Your task to perform on an android device: delete browsing data in the chrome app Image 0: 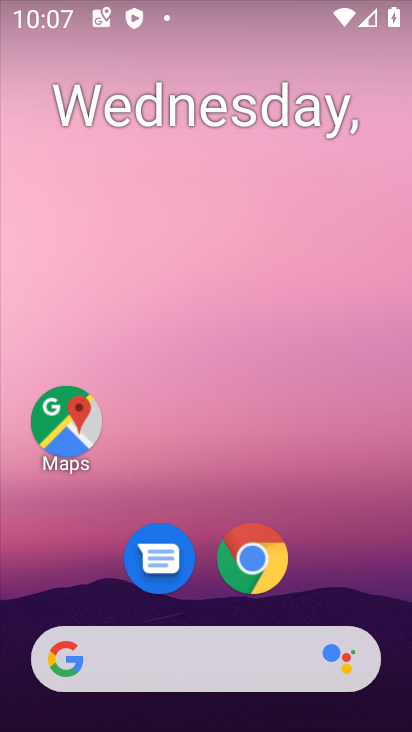
Step 0: click (249, 561)
Your task to perform on an android device: delete browsing data in the chrome app Image 1: 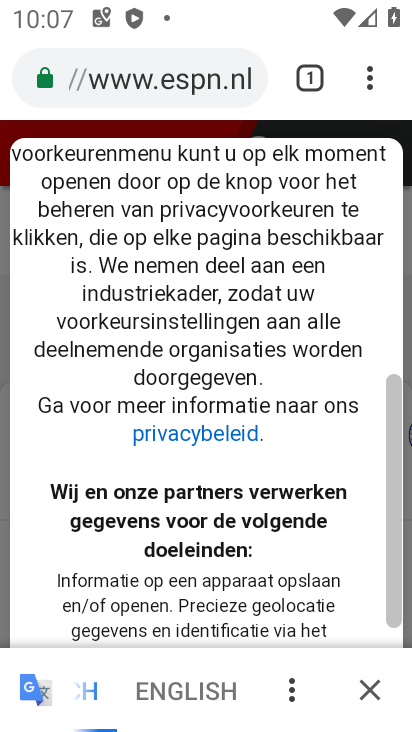
Step 1: click (365, 692)
Your task to perform on an android device: delete browsing data in the chrome app Image 2: 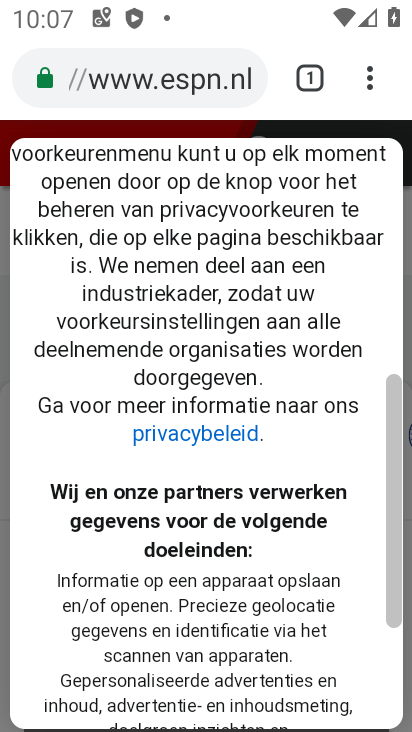
Step 2: click (366, 82)
Your task to perform on an android device: delete browsing data in the chrome app Image 3: 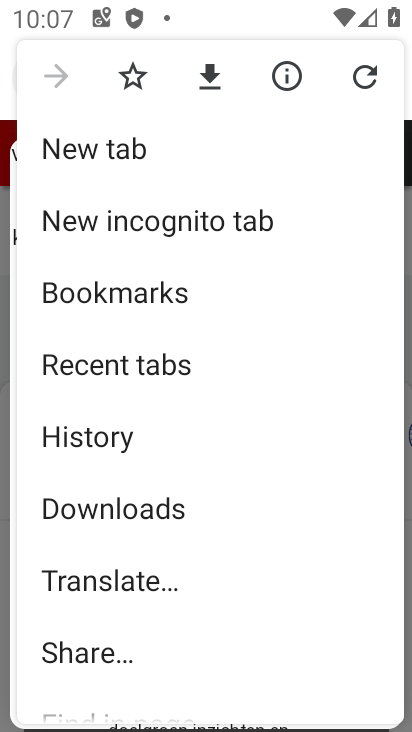
Step 3: click (142, 426)
Your task to perform on an android device: delete browsing data in the chrome app Image 4: 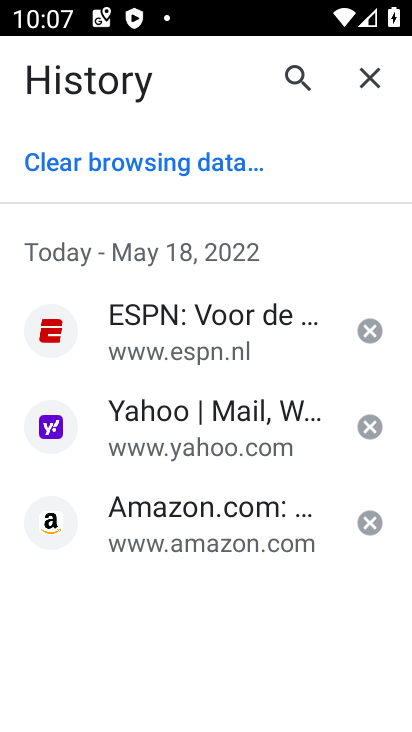
Step 4: click (181, 181)
Your task to perform on an android device: delete browsing data in the chrome app Image 5: 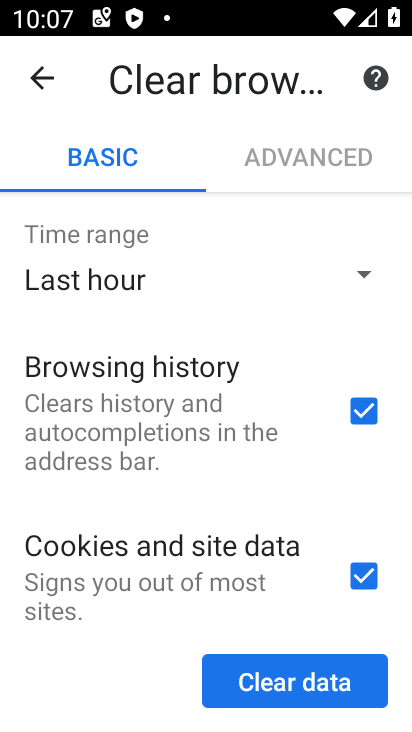
Step 5: click (296, 679)
Your task to perform on an android device: delete browsing data in the chrome app Image 6: 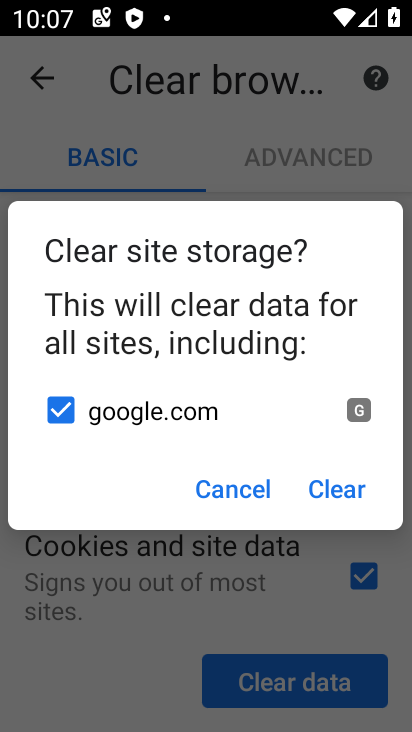
Step 6: click (336, 489)
Your task to perform on an android device: delete browsing data in the chrome app Image 7: 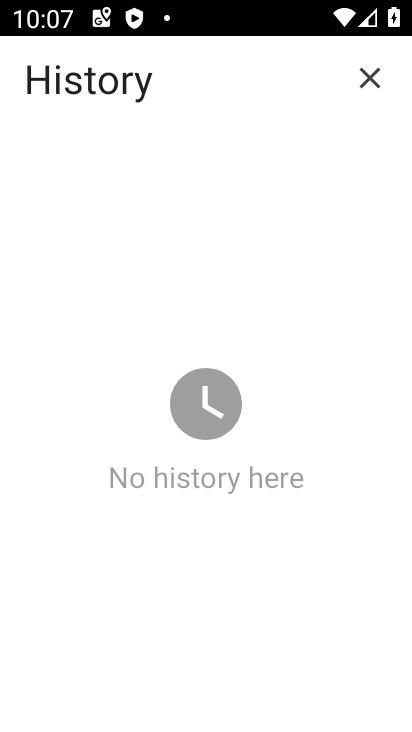
Step 7: task complete